Your task to perform on an android device: open a new tab in the chrome app Image 0: 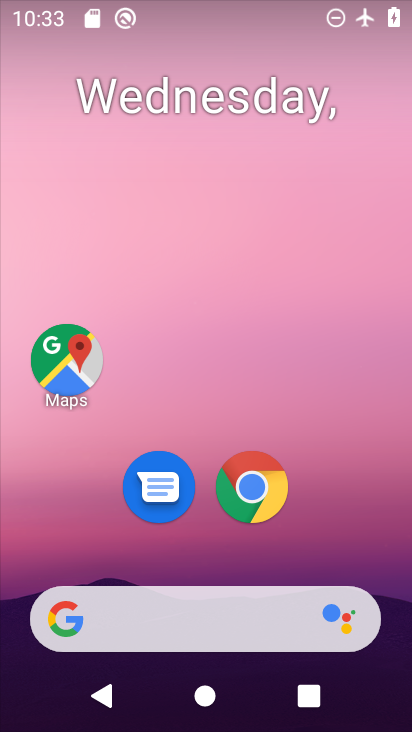
Step 0: click (257, 487)
Your task to perform on an android device: open a new tab in the chrome app Image 1: 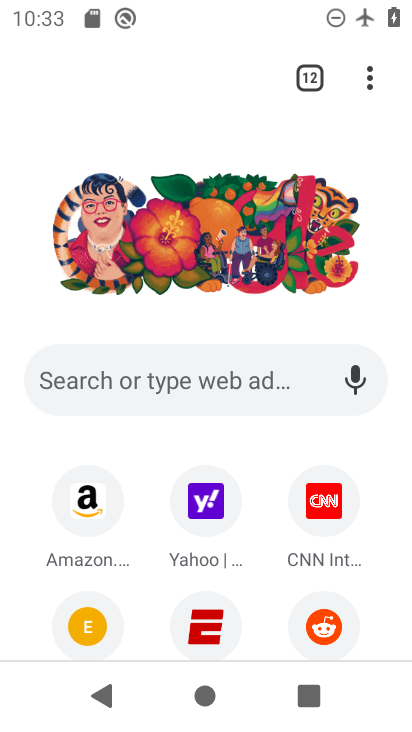
Step 1: click (367, 66)
Your task to perform on an android device: open a new tab in the chrome app Image 2: 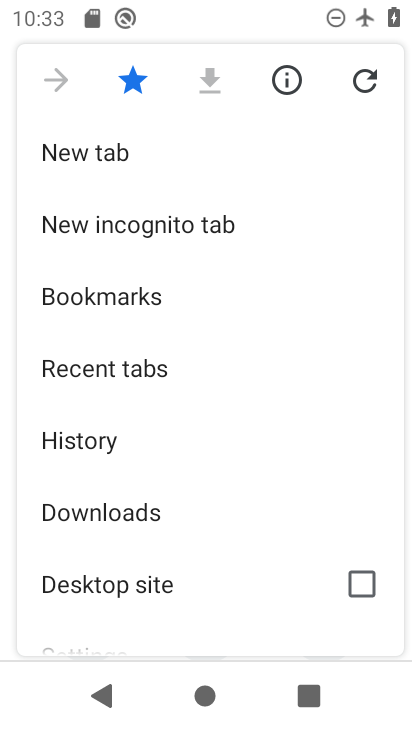
Step 2: click (99, 152)
Your task to perform on an android device: open a new tab in the chrome app Image 3: 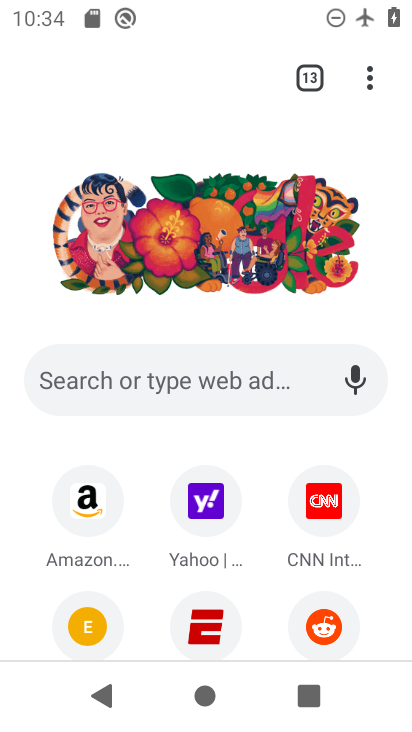
Step 3: task complete